Your task to perform on an android device: Open the calendar app, open the side menu, and click the "Day" option Image 0: 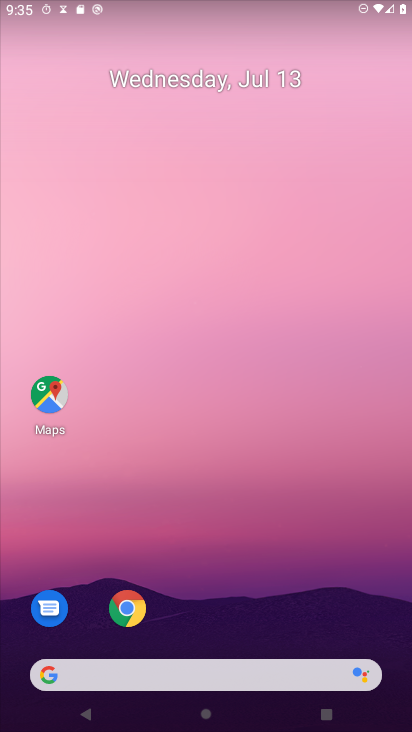
Step 0: drag from (269, 658) to (253, 290)
Your task to perform on an android device: Open the calendar app, open the side menu, and click the "Day" option Image 1: 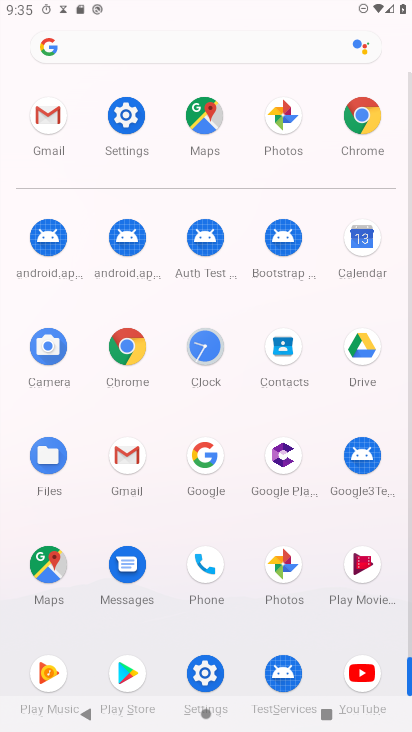
Step 1: click (351, 238)
Your task to perform on an android device: Open the calendar app, open the side menu, and click the "Day" option Image 2: 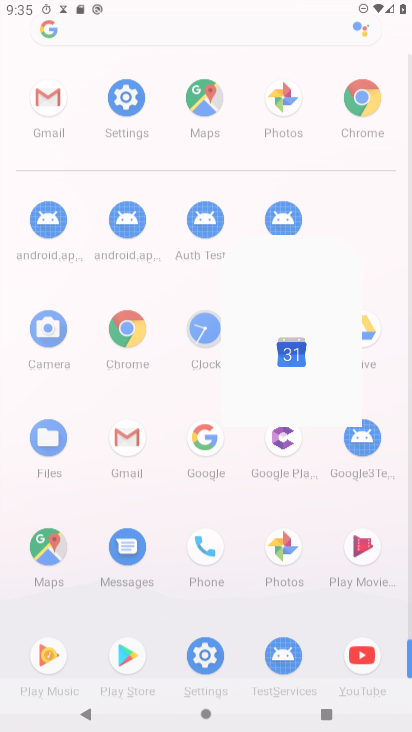
Step 2: click (354, 241)
Your task to perform on an android device: Open the calendar app, open the side menu, and click the "Day" option Image 3: 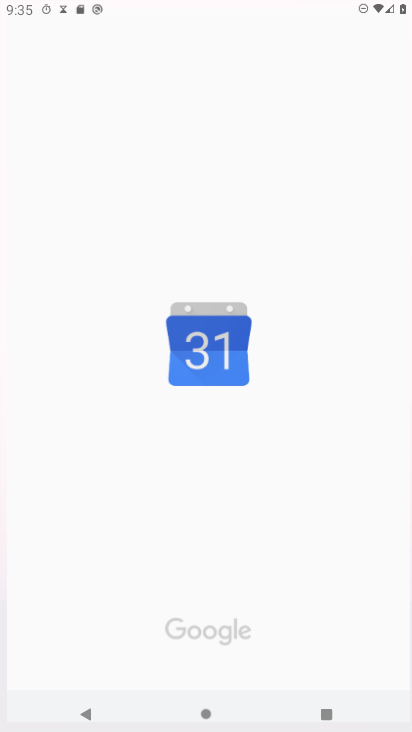
Step 3: click (355, 241)
Your task to perform on an android device: Open the calendar app, open the side menu, and click the "Day" option Image 4: 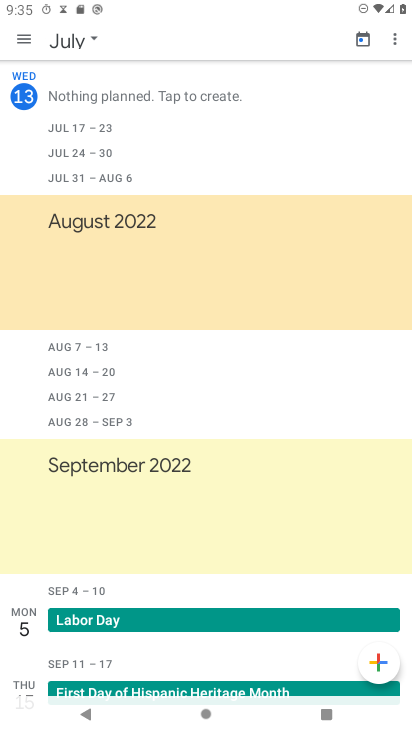
Step 4: click (26, 41)
Your task to perform on an android device: Open the calendar app, open the side menu, and click the "Day" option Image 5: 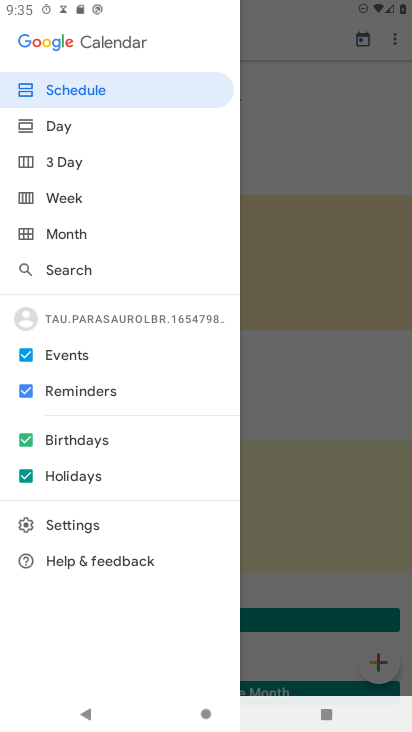
Step 5: click (61, 128)
Your task to perform on an android device: Open the calendar app, open the side menu, and click the "Day" option Image 6: 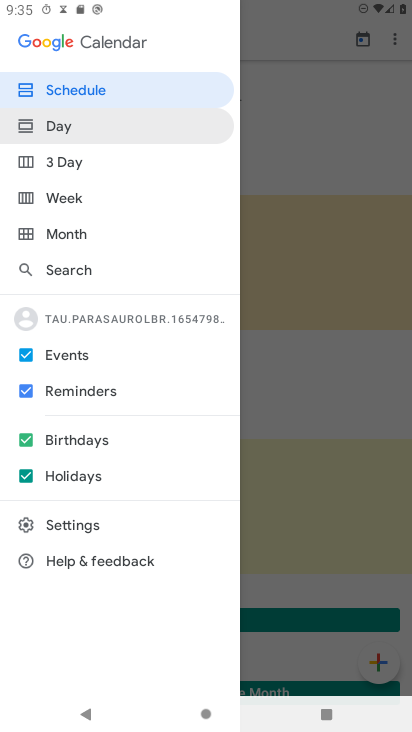
Step 6: click (61, 128)
Your task to perform on an android device: Open the calendar app, open the side menu, and click the "Day" option Image 7: 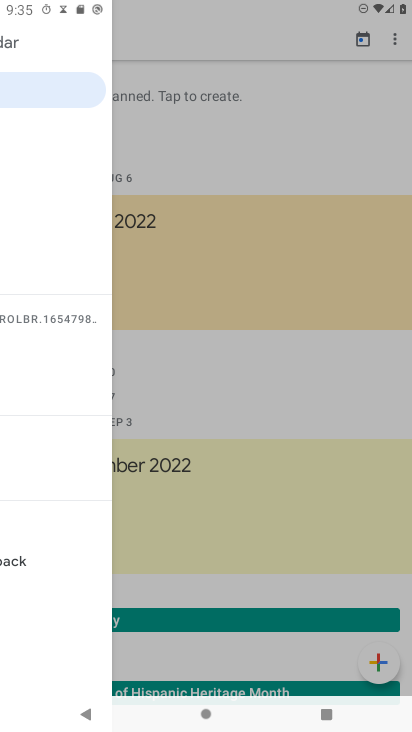
Step 7: click (61, 128)
Your task to perform on an android device: Open the calendar app, open the side menu, and click the "Day" option Image 8: 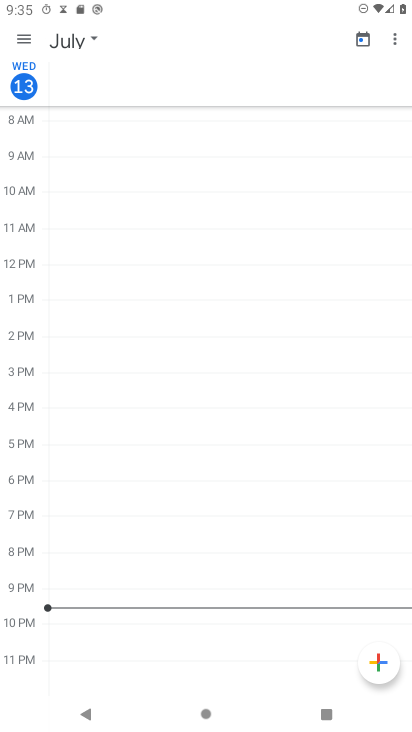
Step 8: task complete